Your task to perform on an android device: toggle translation in the chrome app Image 0: 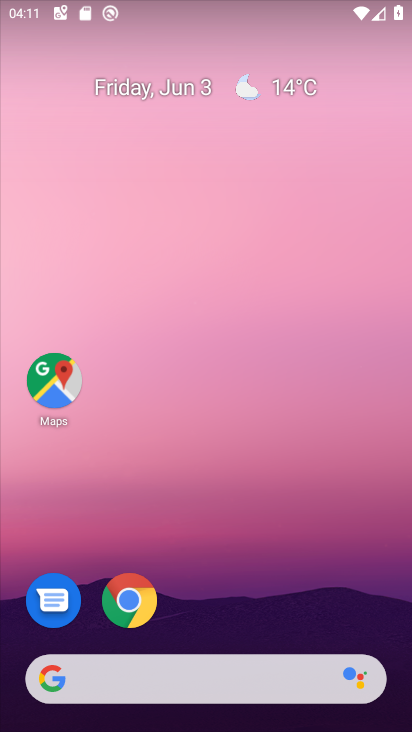
Step 0: click (129, 591)
Your task to perform on an android device: toggle translation in the chrome app Image 1: 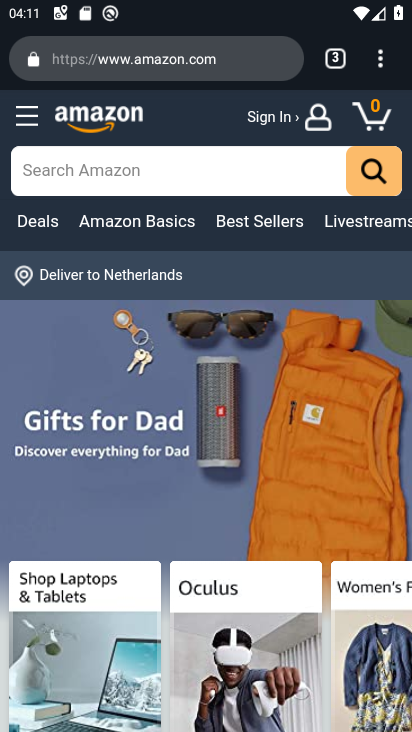
Step 1: drag from (375, 59) to (185, 638)
Your task to perform on an android device: toggle translation in the chrome app Image 2: 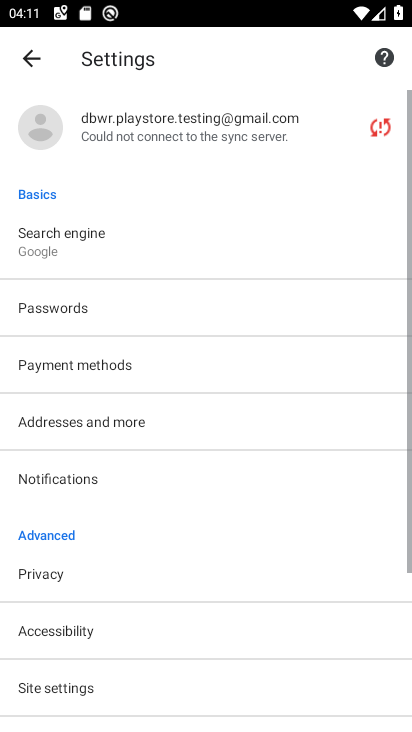
Step 2: drag from (195, 570) to (269, 48)
Your task to perform on an android device: toggle translation in the chrome app Image 3: 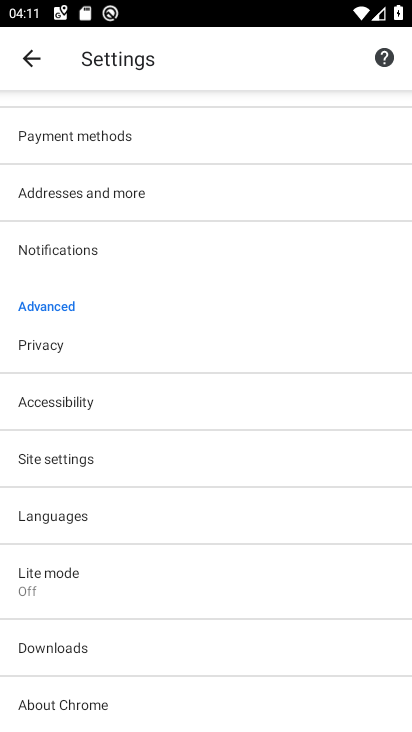
Step 3: click (72, 507)
Your task to perform on an android device: toggle translation in the chrome app Image 4: 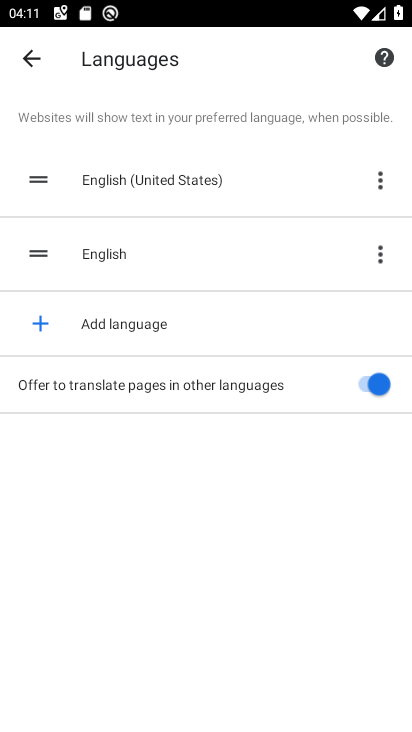
Step 4: click (369, 378)
Your task to perform on an android device: toggle translation in the chrome app Image 5: 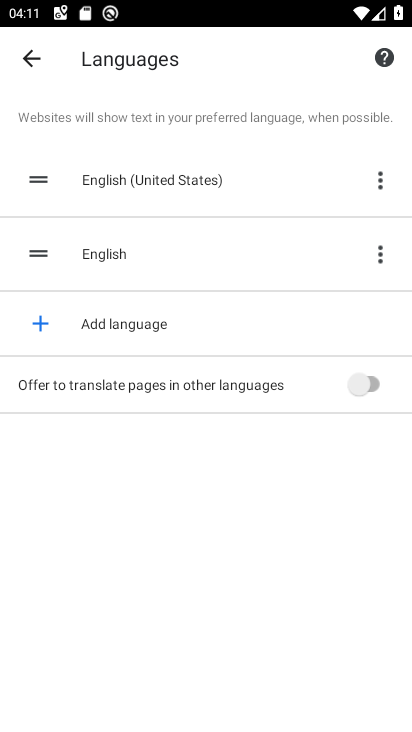
Step 5: task complete